Your task to perform on an android device: set the timer Image 0: 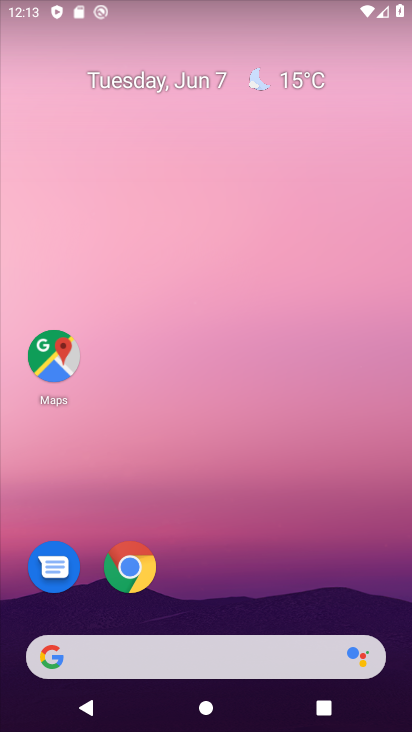
Step 0: drag from (324, 604) to (365, 127)
Your task to perform on an android device: set the timer Image 1: 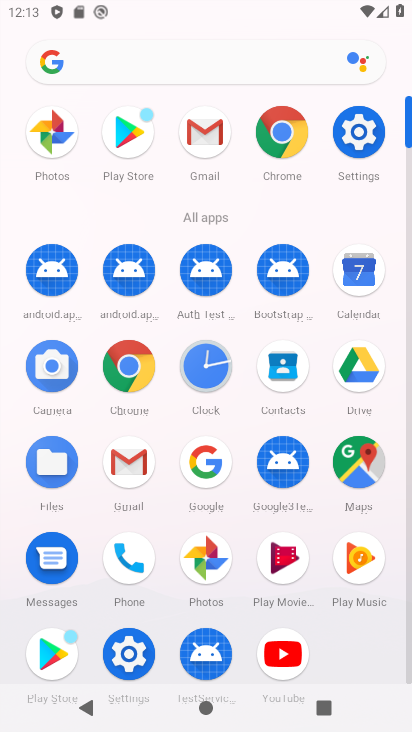
Step 1: click (355, 127)
Your task to perform on an android device: set the timer Image 2: 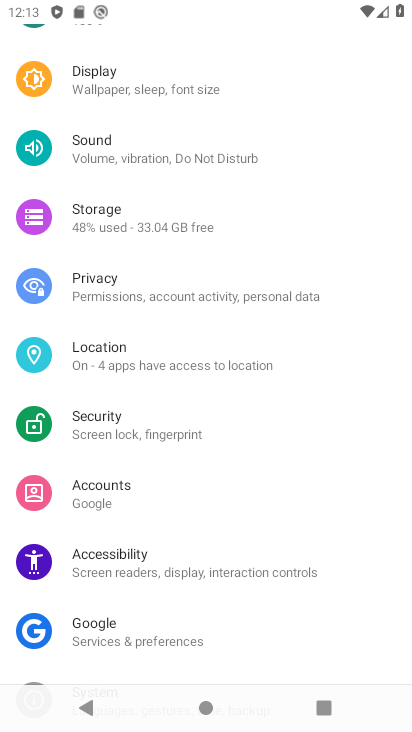
Step 2: click (335, 142)
Your task to perform on an android device: set the timer Image 3: 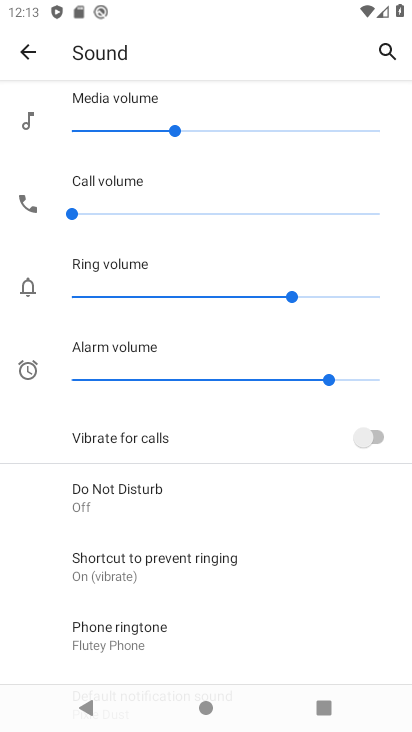
Step 3: press back button
Your task to perform on an android device: set the timer Image 4: 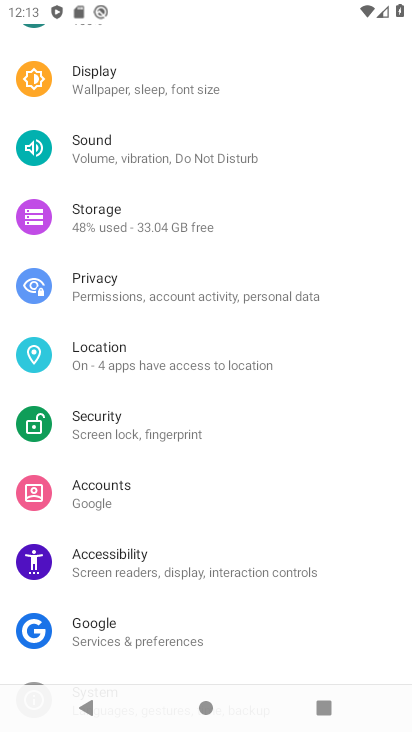
Step 4: press home button
Your task to perform on an android device: set the timer Image 5: 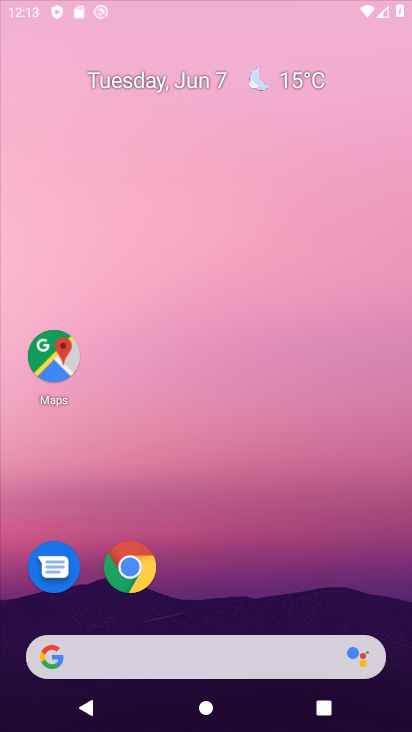
Step 5: drag from (257, 649) to (292, 273)
Your task to perform on an android device: set the timer Image 6: 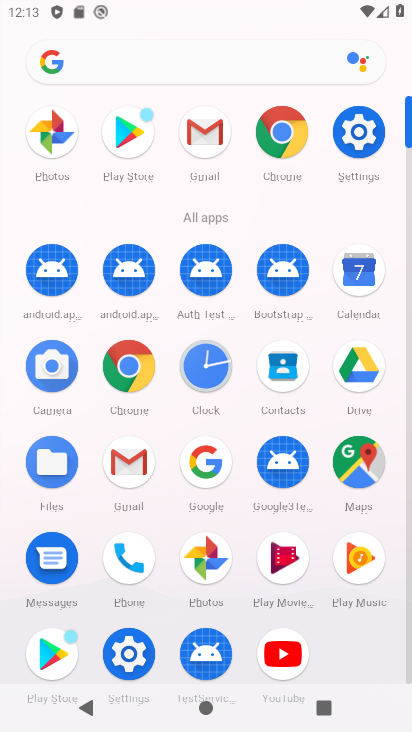
Step 6: click (218, 364)
Your task to perform on an android device: set the timer Image 7: 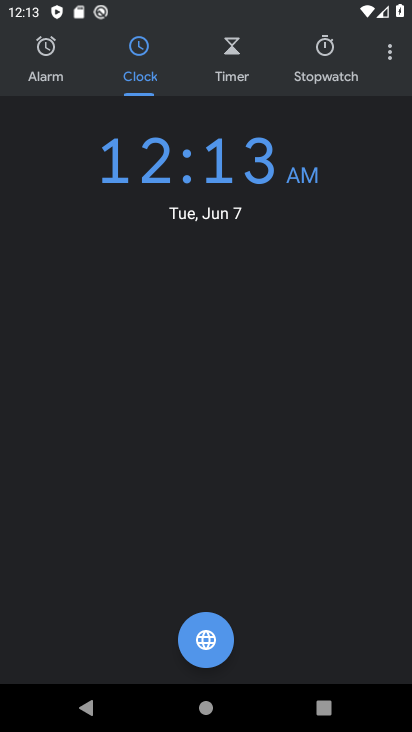
Step 7: click (231, 61)
Your task to perform on an android device: set the timer Image 8: 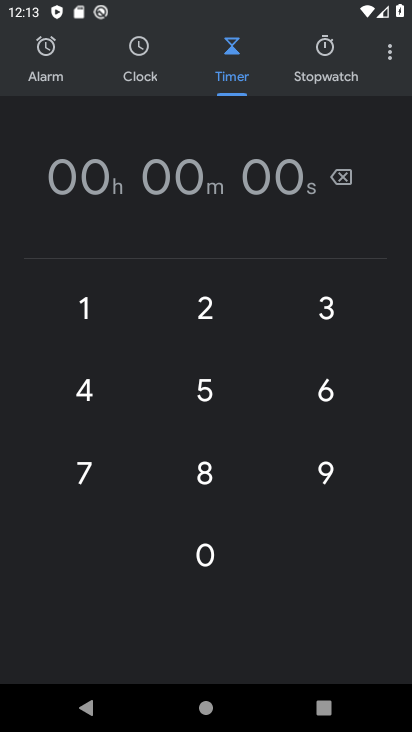
Step 8: click (224, 297)
Your task to perform on an android device: set the timer Image 9: 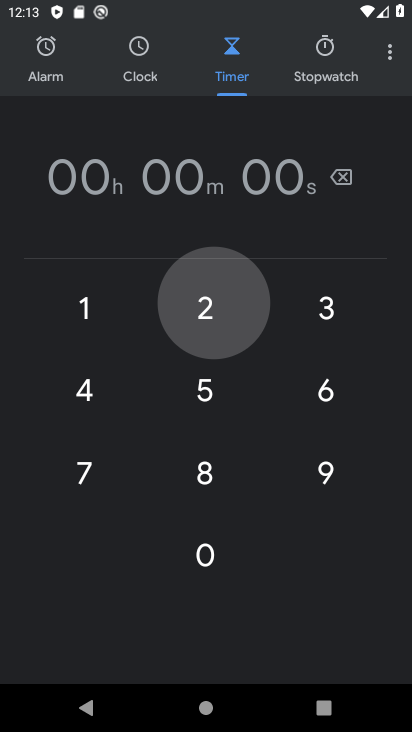
Step 9: click (370, 317)
Your task to perform on an android device: set the timer Image 10: 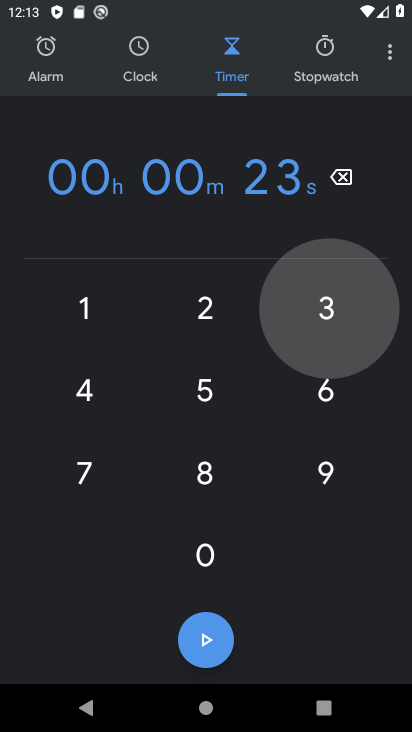
Step 10: click (179, 356)
Your task to perform on an android device: set the timer Image 11: 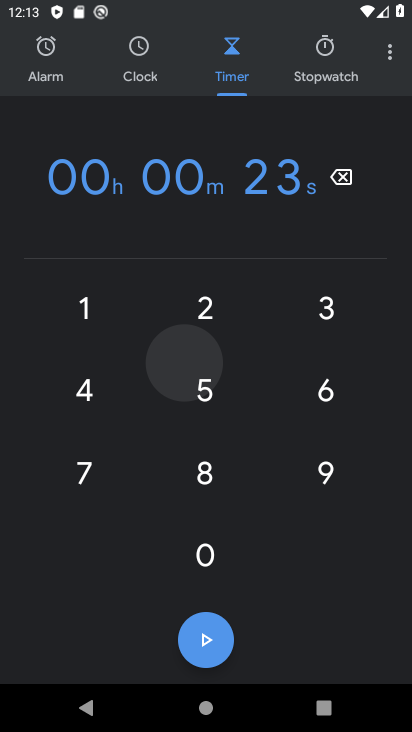
Step 11: click (286, 409)
Your task to perform on an android device: set the timer Image 12: 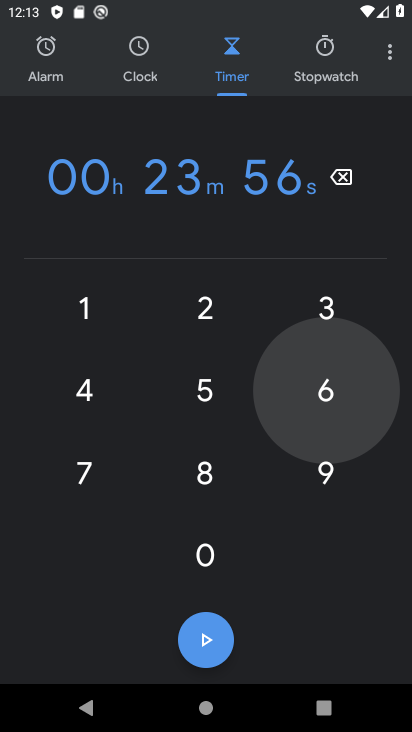
Step 12: drag from (39, 325) to (66, 352)
Your task to perform on an android device: set the timer Image 13: 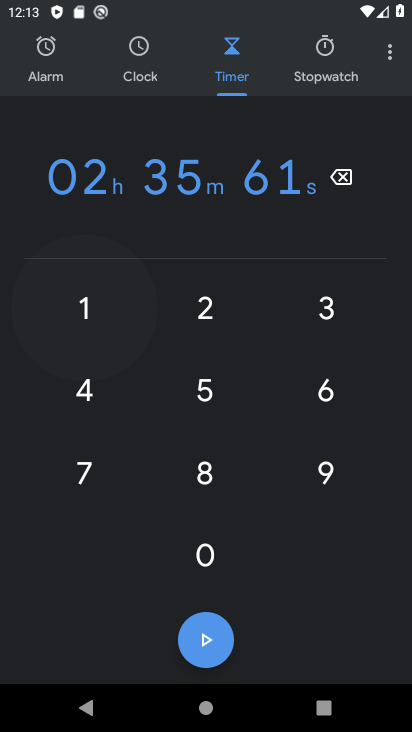
Step 13: click (162, 498)
Your task to perform on an android device: set the timer Image 14: 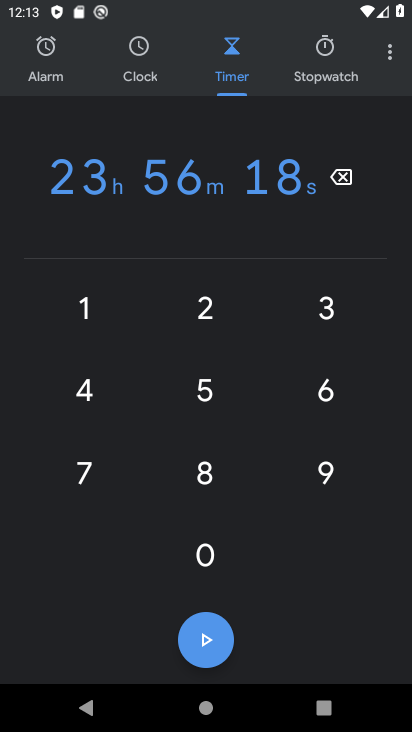
Step 14: click (205, 636)
Your task to perform on an android device: set the timer Image 15: 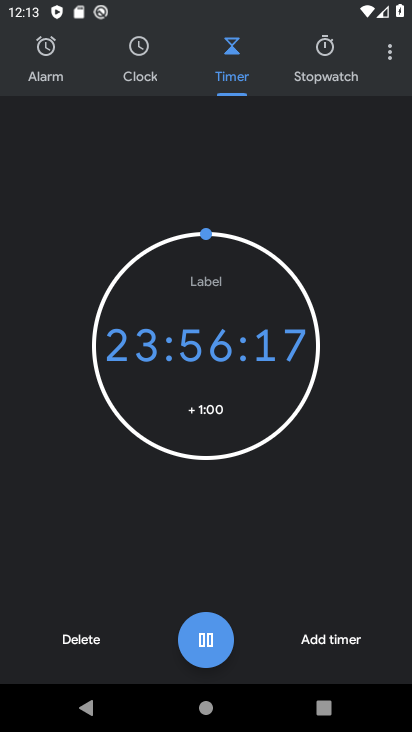
Step 15: task complete